Your task to perform on an android device: Turn on the flashlight Image 0: 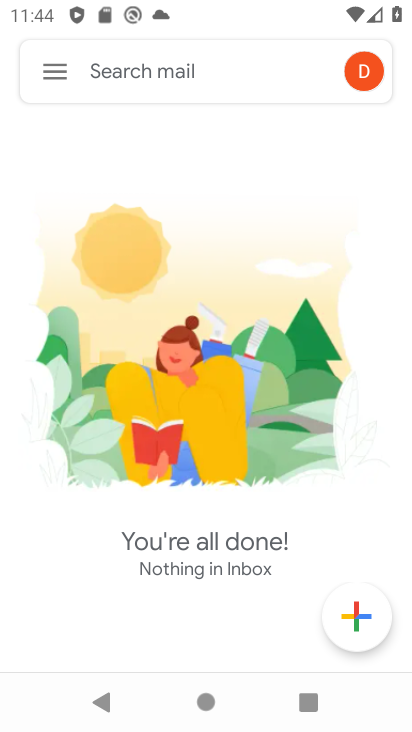
Step 0: press home button
Your task to perform on an android device: Turn on the flashlight Image 1: 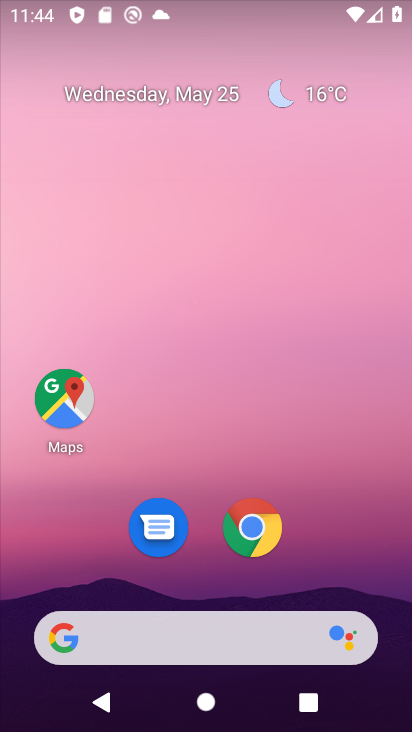
Step 1: task complete